Your task to perform on an android device: Open Android settings Image 0: 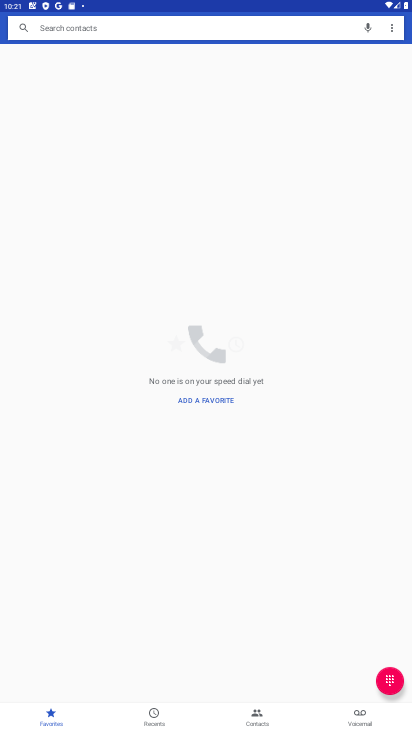
Step 0: press home button
Your task to perform on an android device: Open Android settings Image 1: 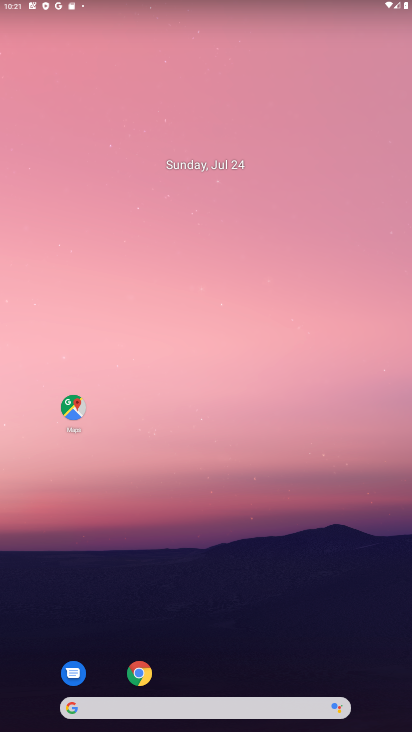
Step 1: drag from (25, 680) to (200, 167)
Your task to perform on an android device: Open Android settings Image 2: 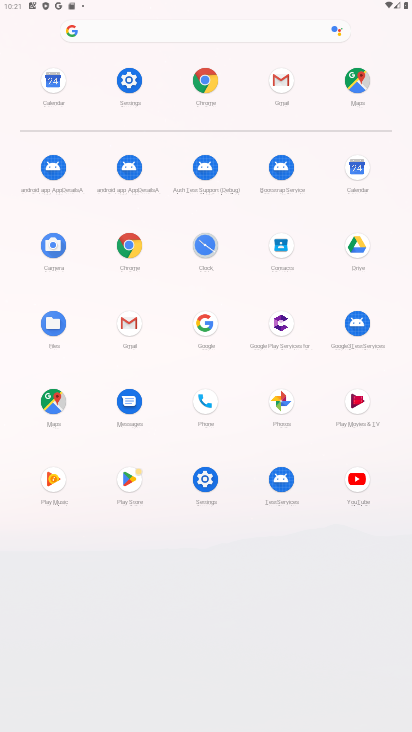
Step 2: click (207, 488)
Your task to perform on an android device: Open Android settings Image 3: 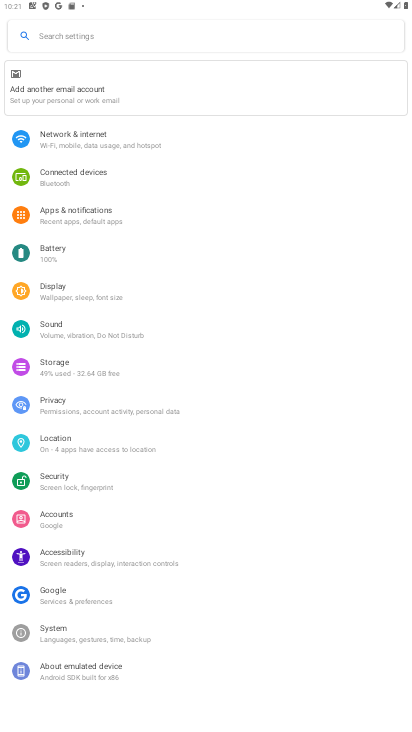
Step 3: click (89, 667)
Your task to perform on an android device: Open Android settings Image 4: 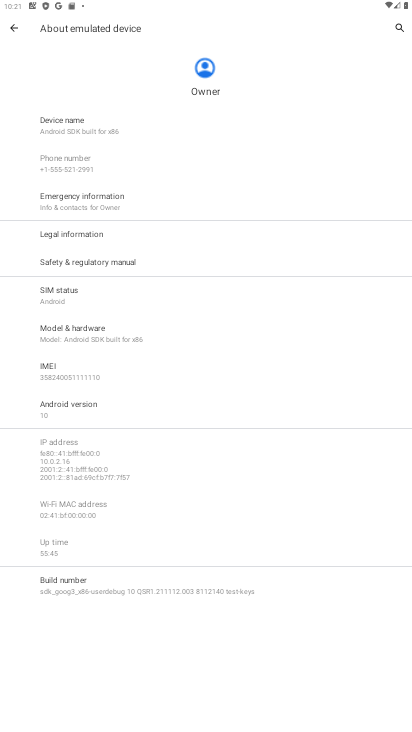
Step 4: click (96, 405)
Your task to perform on an android device: Open Android settings Image 5: 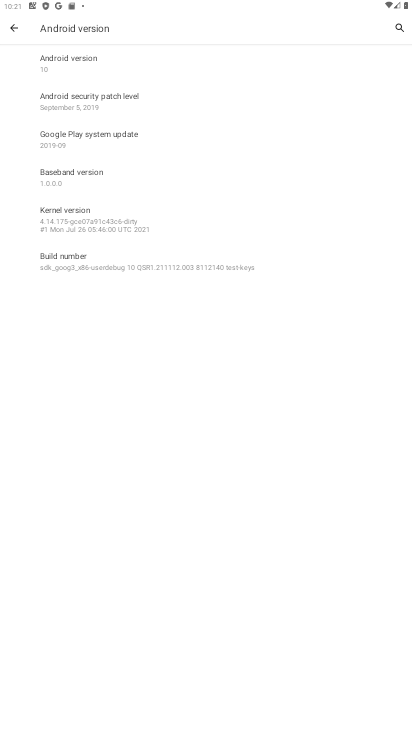
Step 5: task complete